Your task to perform on an android device: Is it going to rain today? Image 0: 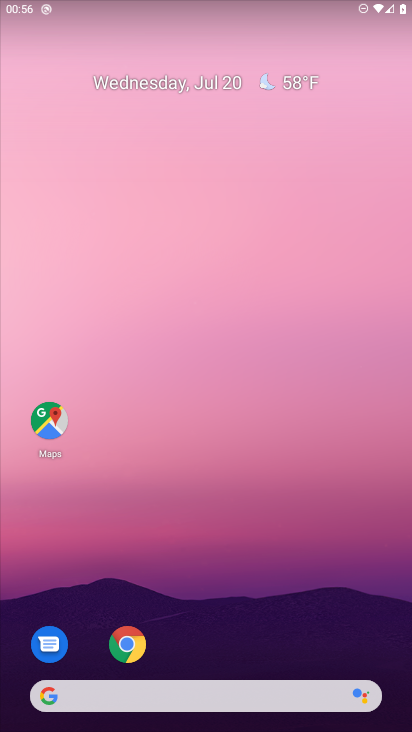
Step 0: click (89, 690)
Your task to perform on an android device: Is it going to rain today? Image 1: 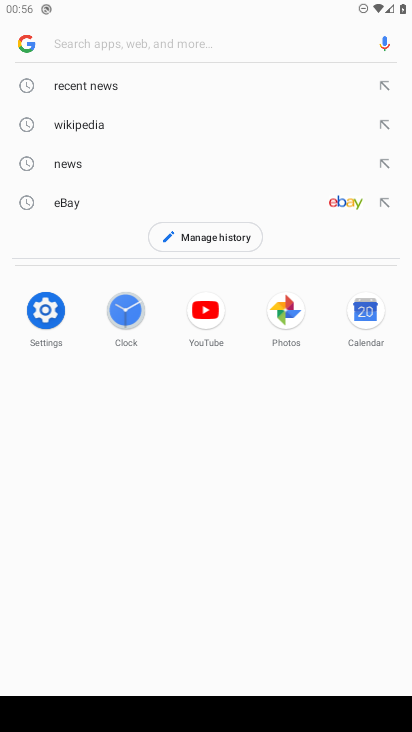
Step 1: type "Is it going to rain today?"
Your task to perform on an android device: Is it going to rain today? Image 2: 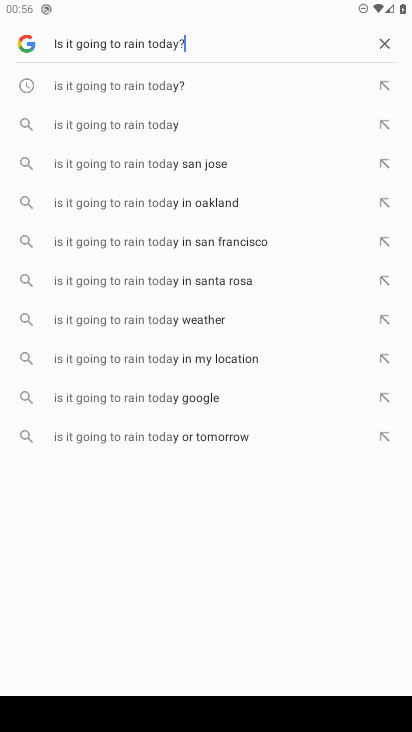
Step 2: type ""
Your task to perform on an android device: Is it going to rain today? Image 3: 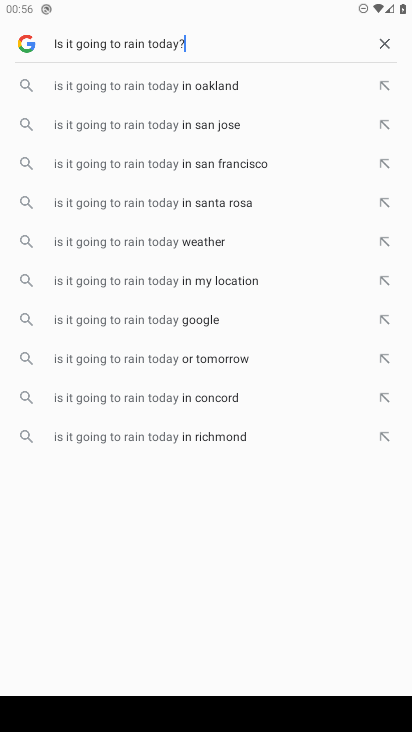
Step 3: type ""
Your task to perform on an android device: Is it going to rain today? Image 4: 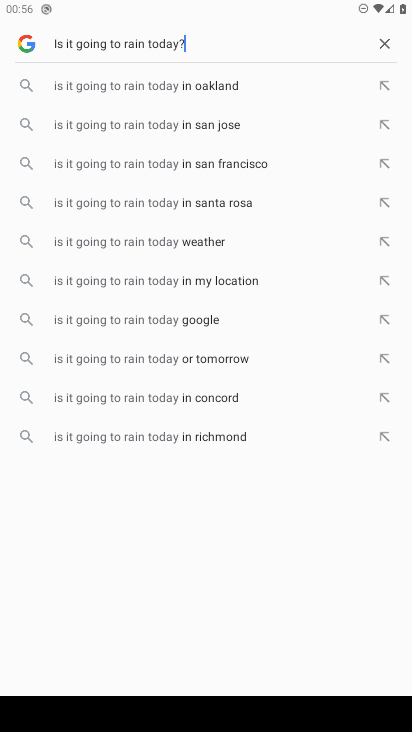
Step 4: type ""
Your task to perform on an android device: Is it going to rain today? Image 5: 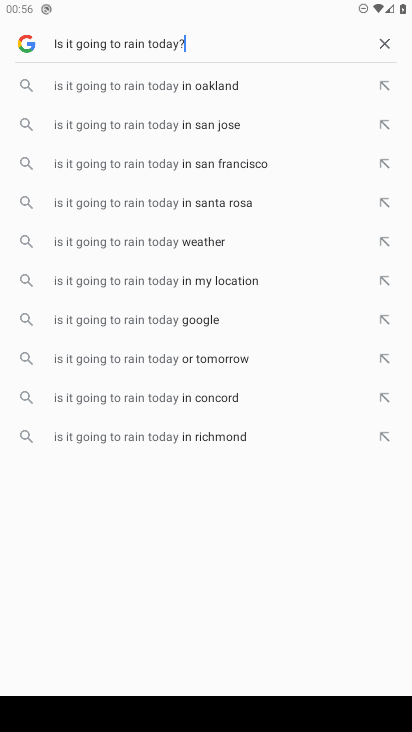
Step 5: task complete